Your task to perform on an android device: Open sound settings Image 0: 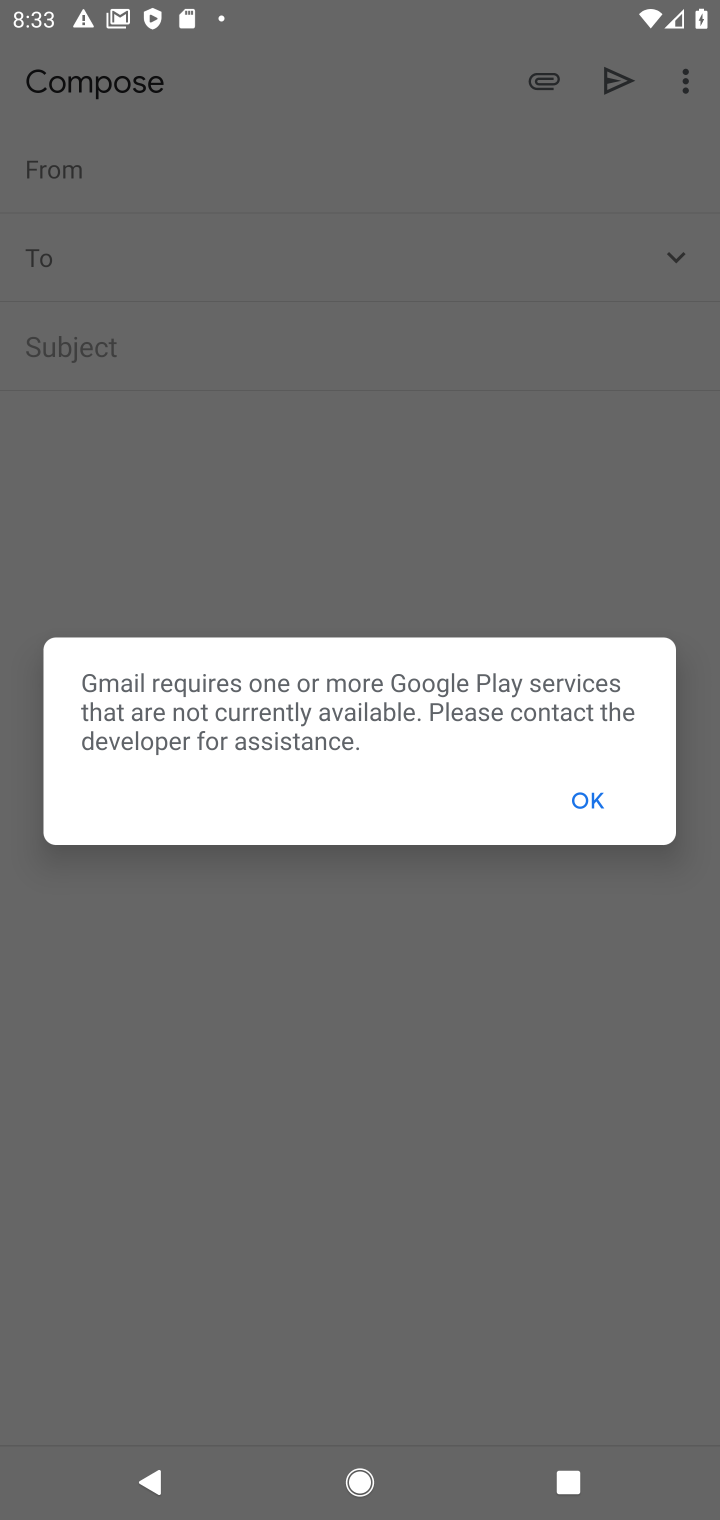
Step 0: press home button
Your task to perform on an android device: Open sound settings Image 1: 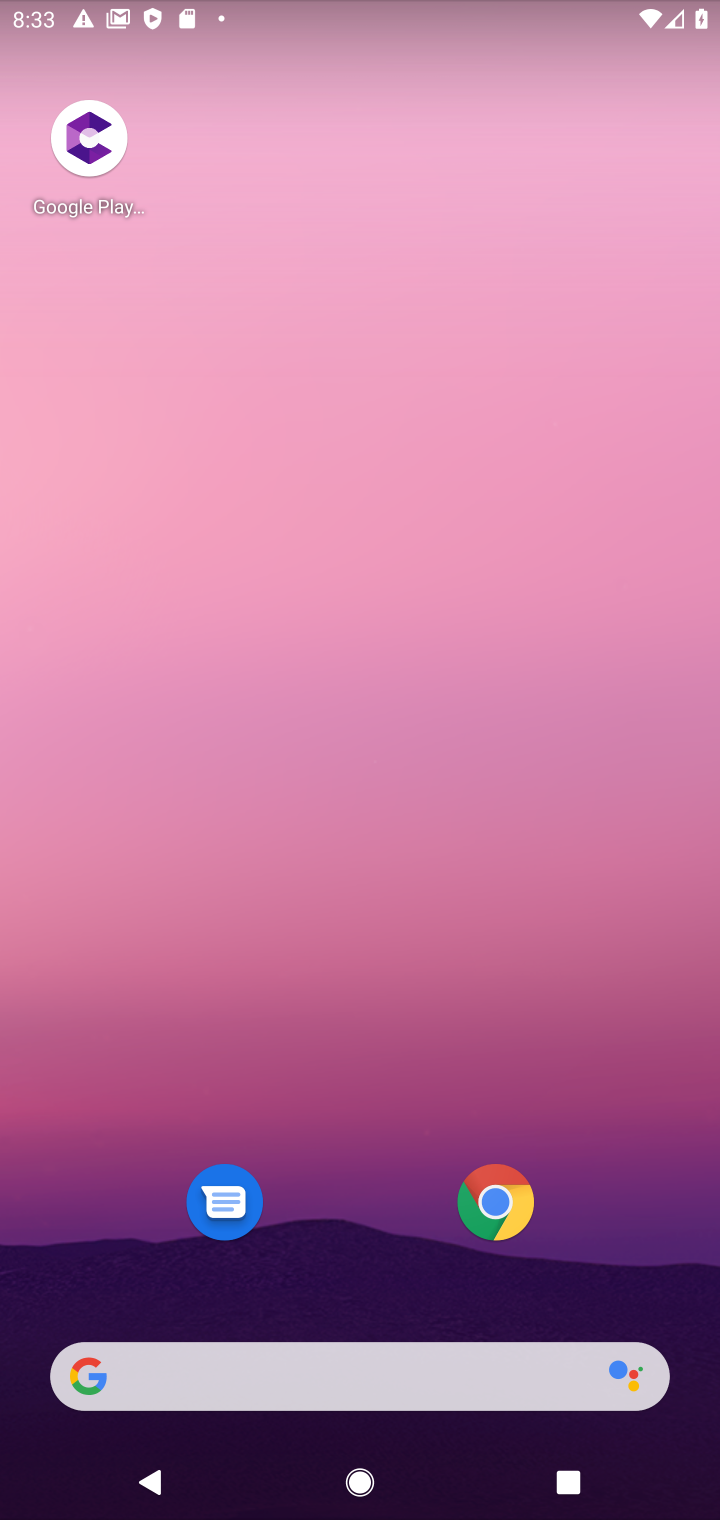
Step 1: drag from (358, 1241) to (708, 775)
Your task to perform on an android device: Open sound settings Image 2: 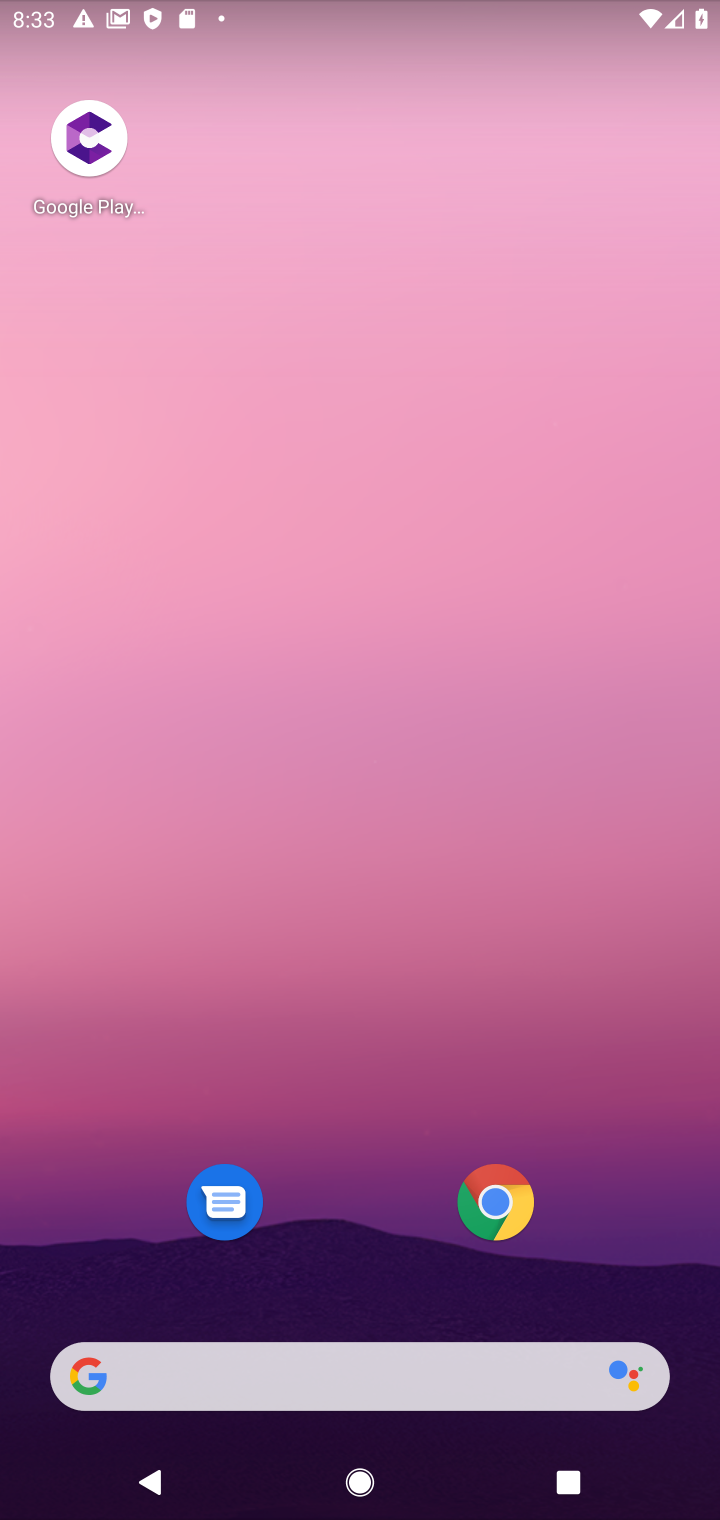
Step 2: drag from (352, 1075) to (310, 56)
Your task to perform on an android device: Open sound settings Image 3: 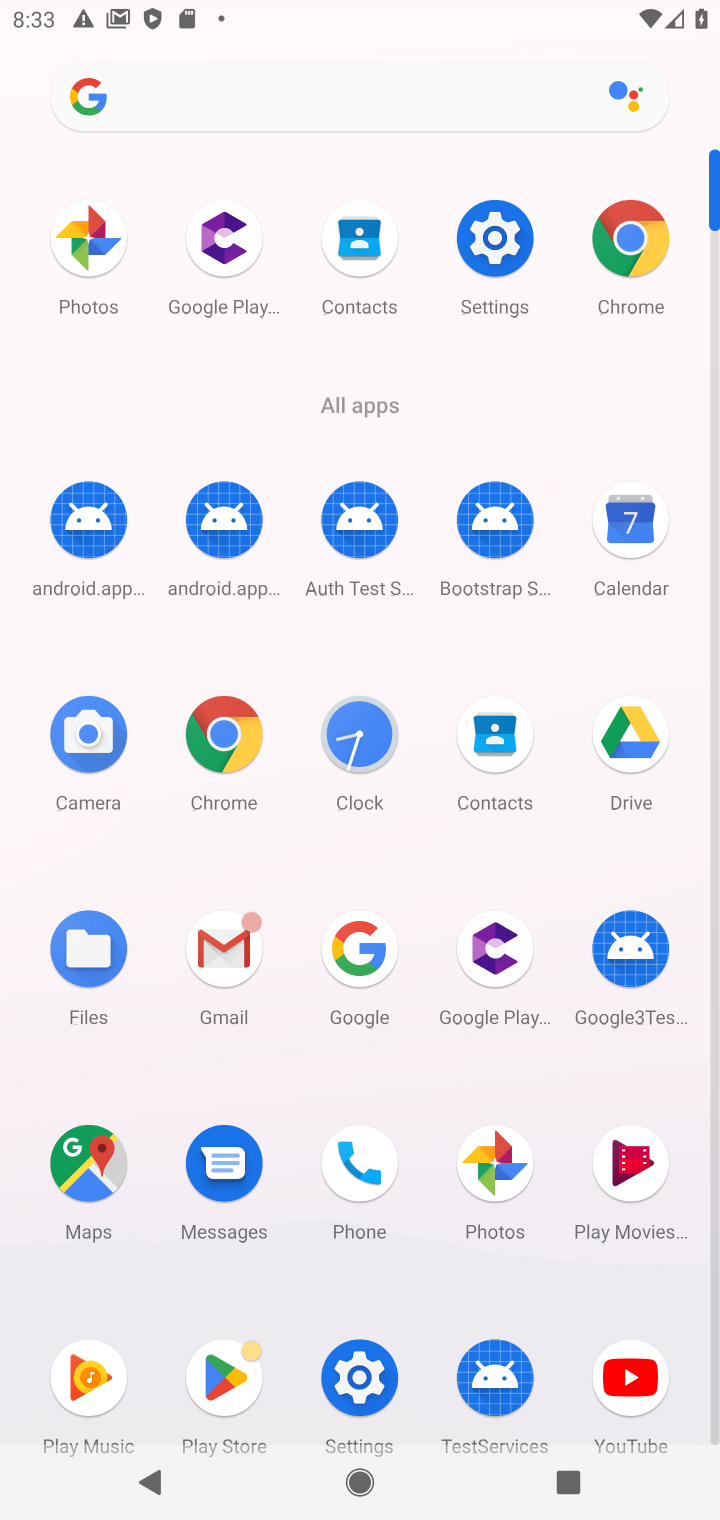
Step 3: click (483, 210)
Your task to perform on an android device: Open sound settings Image 4: 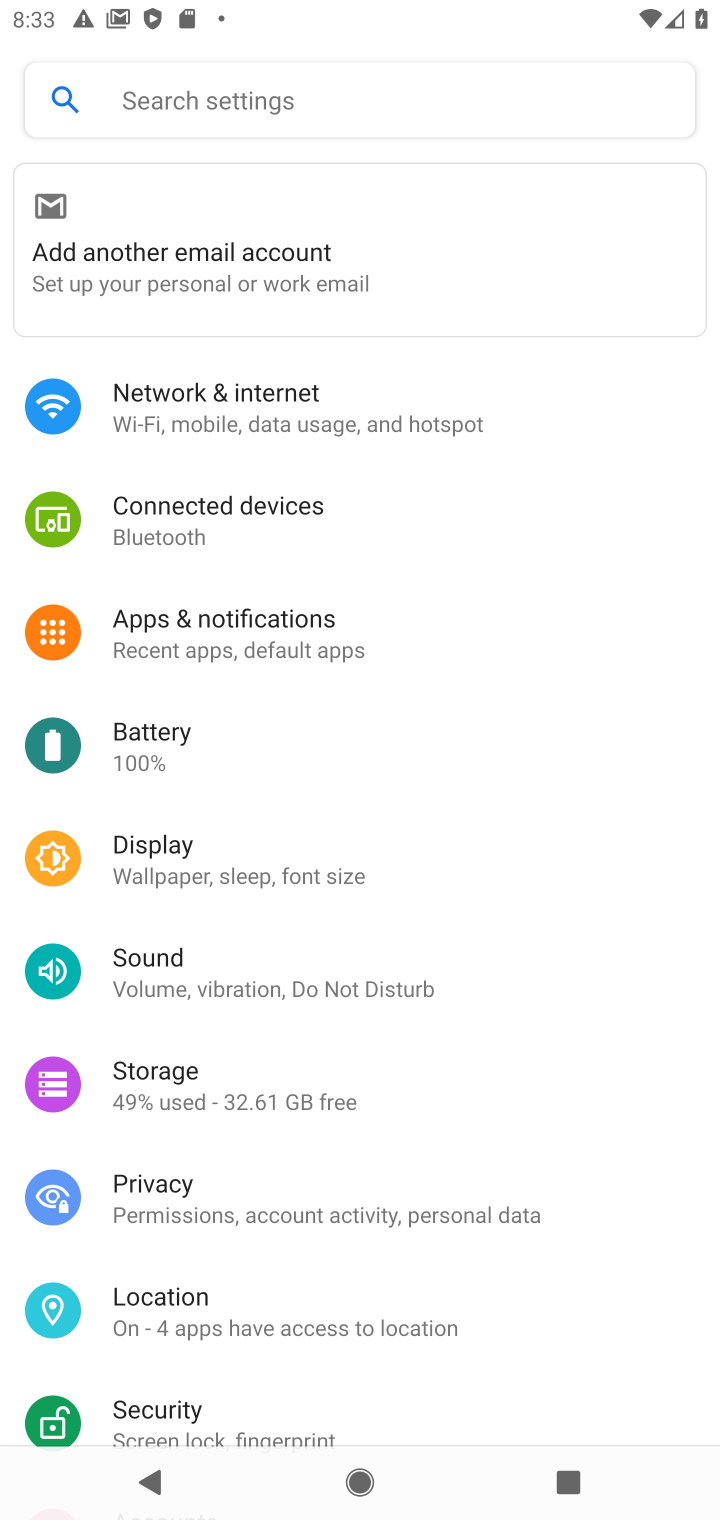
Step 4: click (193, 974)
Your task to perform on an android device: Open sound settings Image 5: 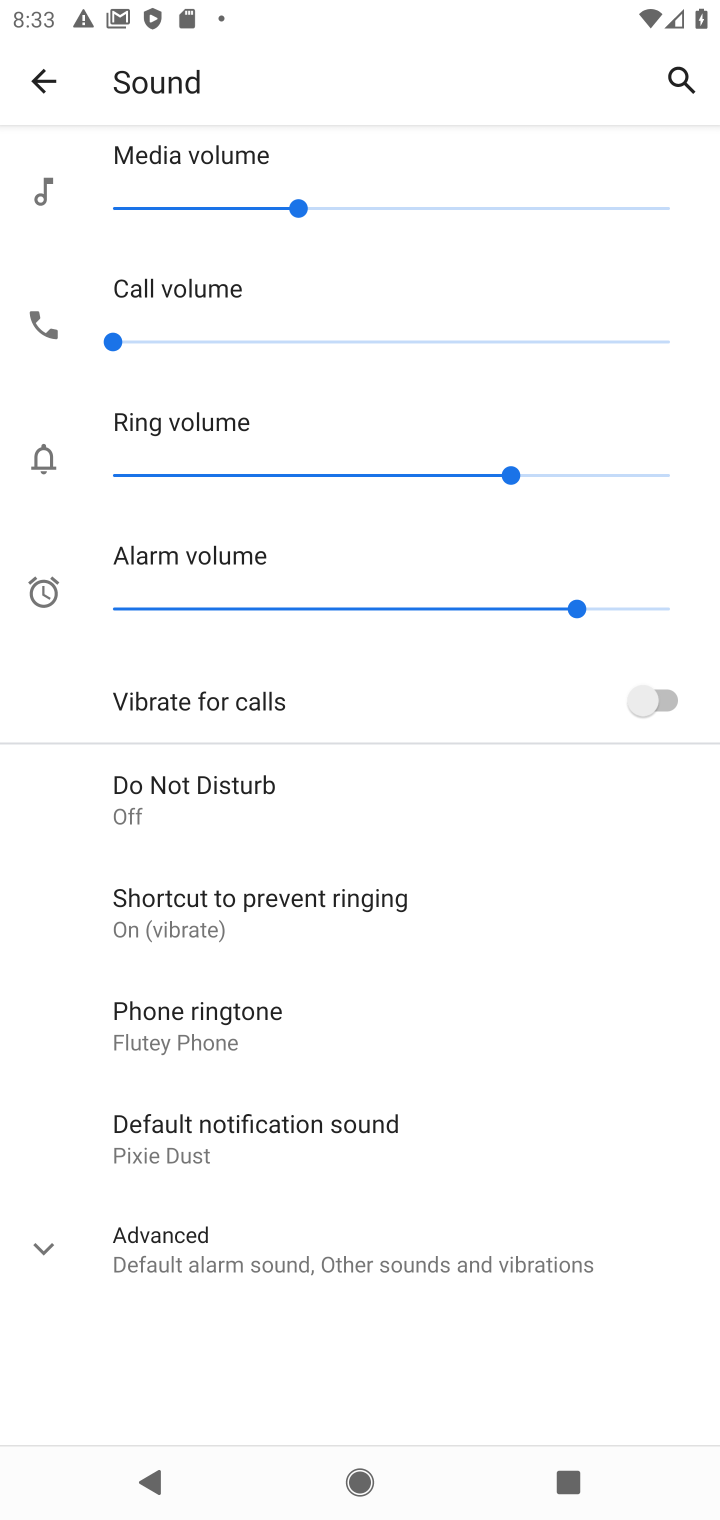
Step 5: task complete